Your task to perform on an android device: change text size in settings app Image 0: 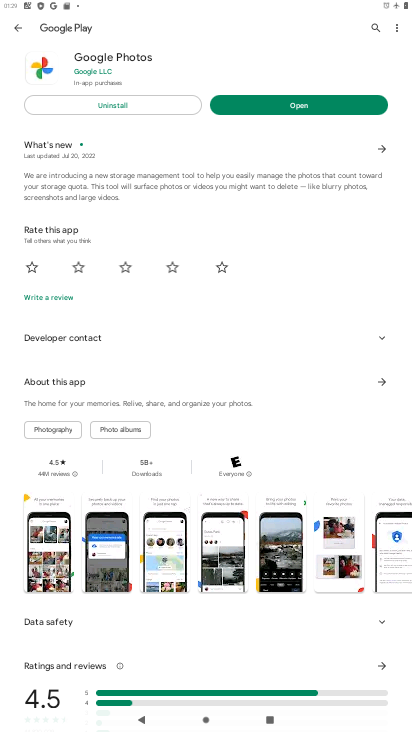
Step 0: press home button
Your task to perform on an android device: change text size in settings app Image 1: 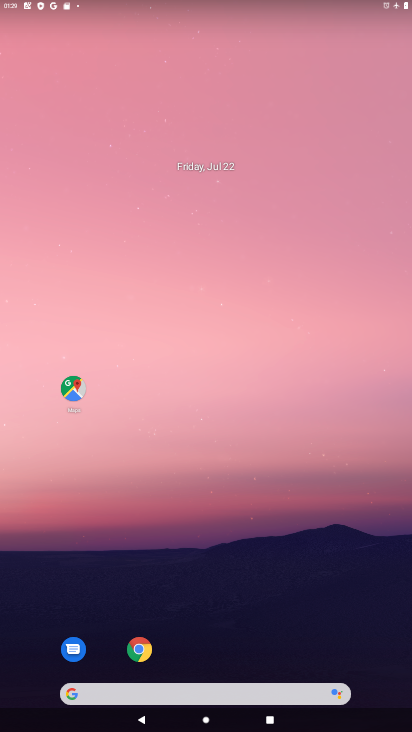
Step 1: drag from (369, 611) to (286, 121)
Your task to perform on an android device: change text size in settings app Image 2: 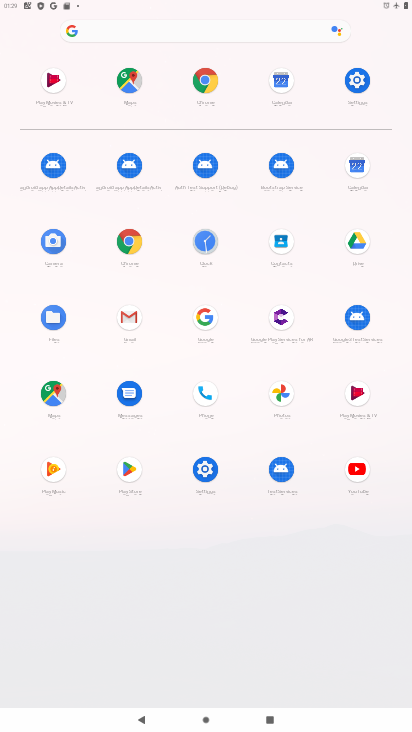
Step 2: click (355, 80)
Your task to perform on an android device: change text size in settings app Image 3: 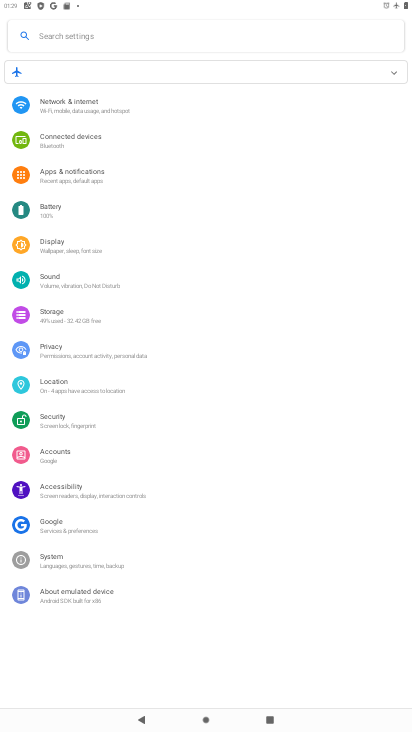
Step 3: click (66, 248)
Your task to perform on an android device: change text size in settings app Image 4: 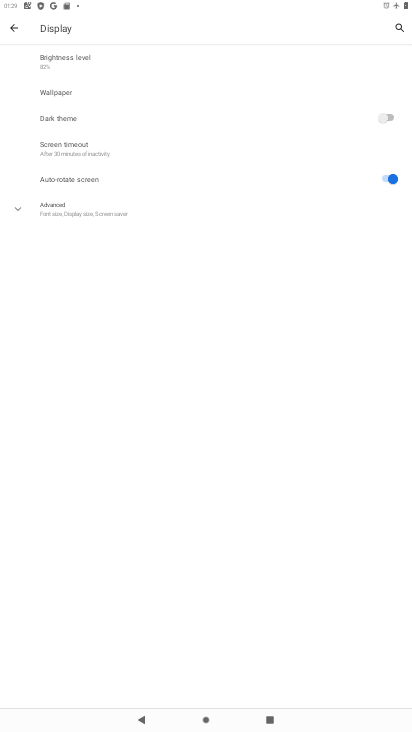
Step 4: click (99, 220)
Your task to perform on an android device: change text size in settings app Image 5: 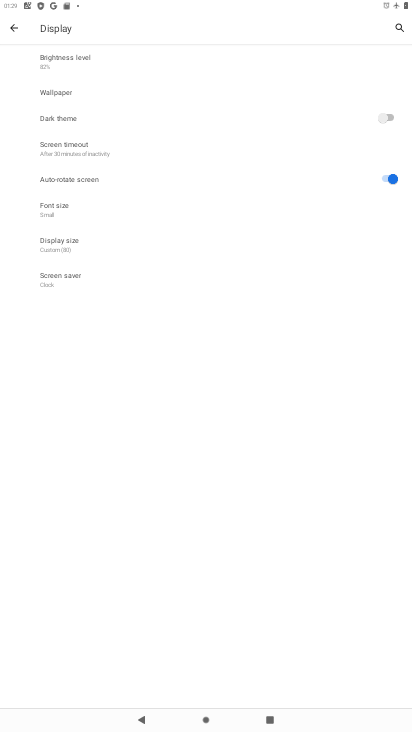
Step 5: click (62, 213)
Your task to perform on an android device: change text size in settings app Image 6: 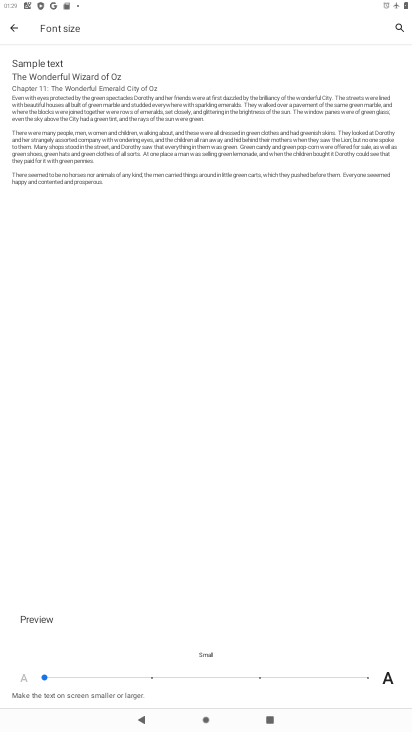
Step 6: click (113, 682)
Your task to perform on an android device: change text size in settings app Image 7: 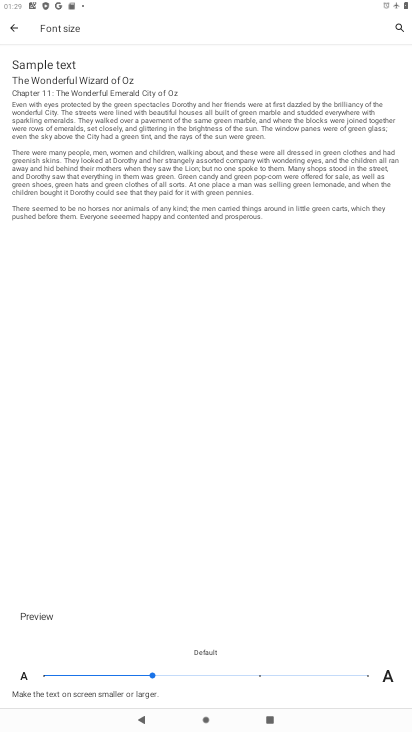
Step 7: task complete